Your task to perform on an android device: change the clock display to analog Image 0: 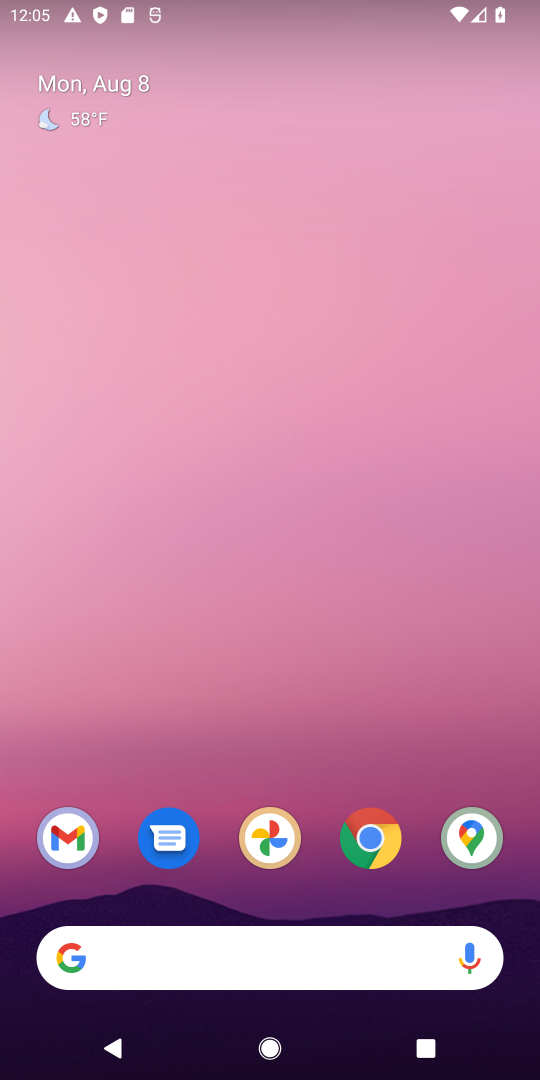
Step 0: press home button
Your task to perform on an android device: change the clock display to analog Image 1: 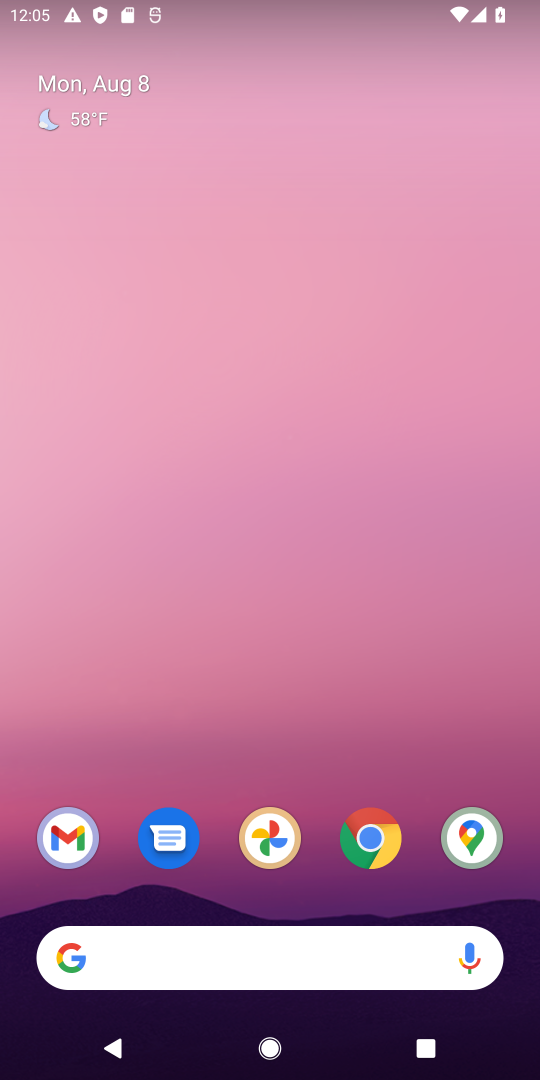
Step 1: drag from (343, 894) to (348, 99)
Your task to perform on an android device: change the clock display to analog Image 2: 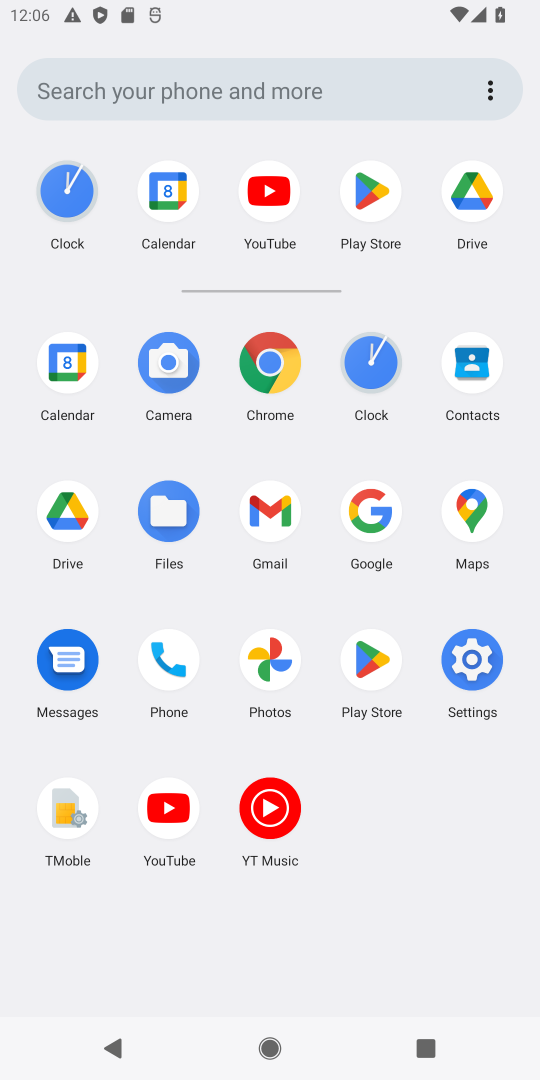
Step 2: click (63, 193)
Your task to perform on an android device: change the clock display to analog Image 3: 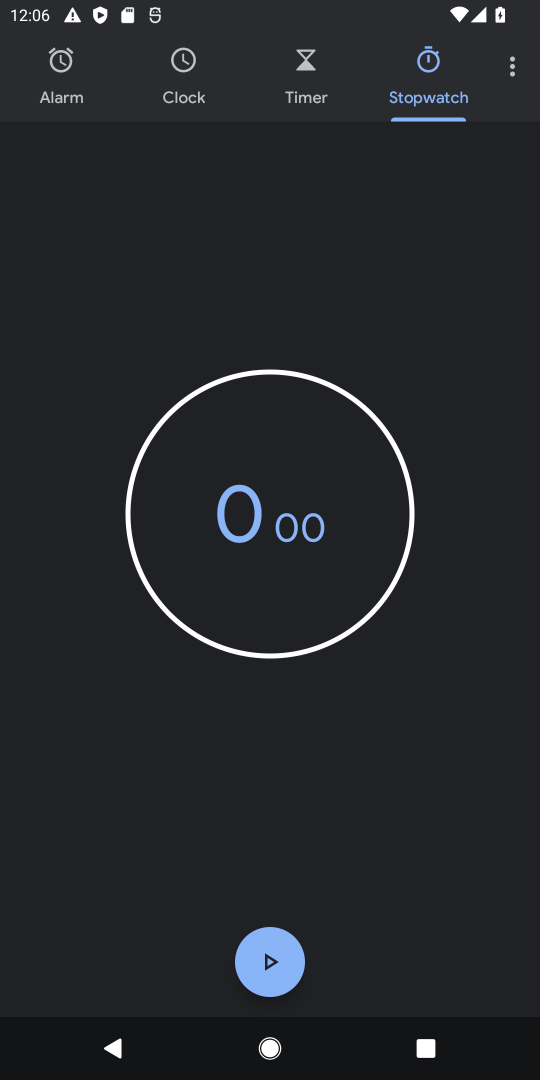
Step 3: click (508, 60)
Your task to perform on an android device: change the clock display to analog Image 4: 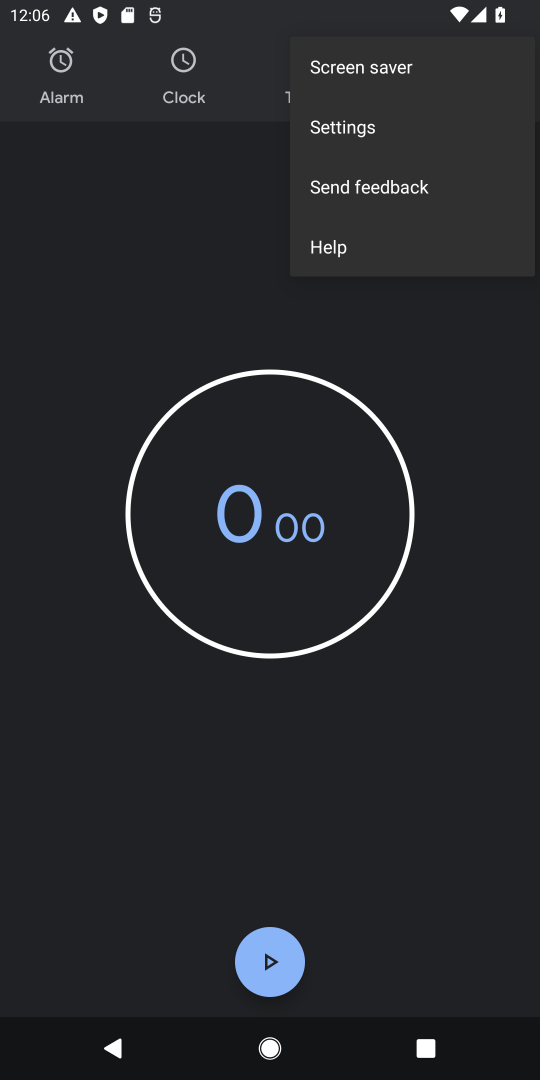
Step 4: click (343, 128)
Your task to perform on an android device: change the clock display to analog Image 5: 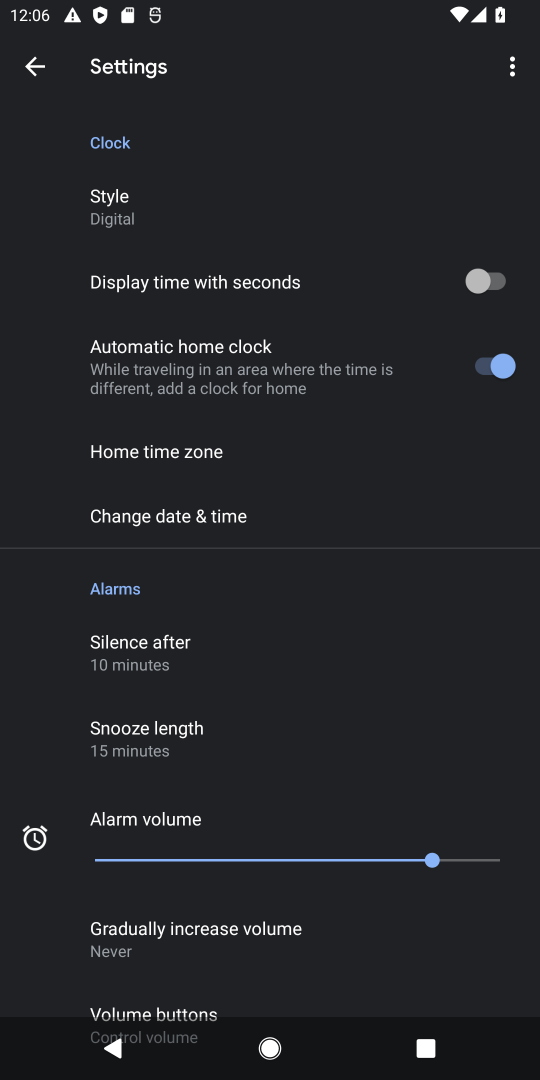
Step 5: click (116, 207)
Your task to perform on an android device: change the clock display to analog Image 6: 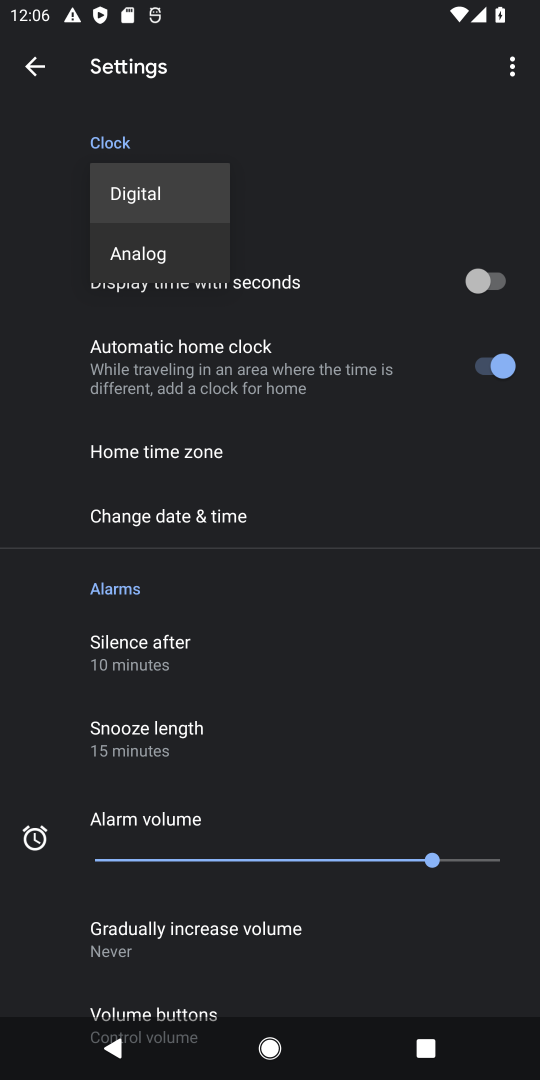
Step 6: click (122, 261)
Your task to perform on an android device: change the clock display to analog Image 7: 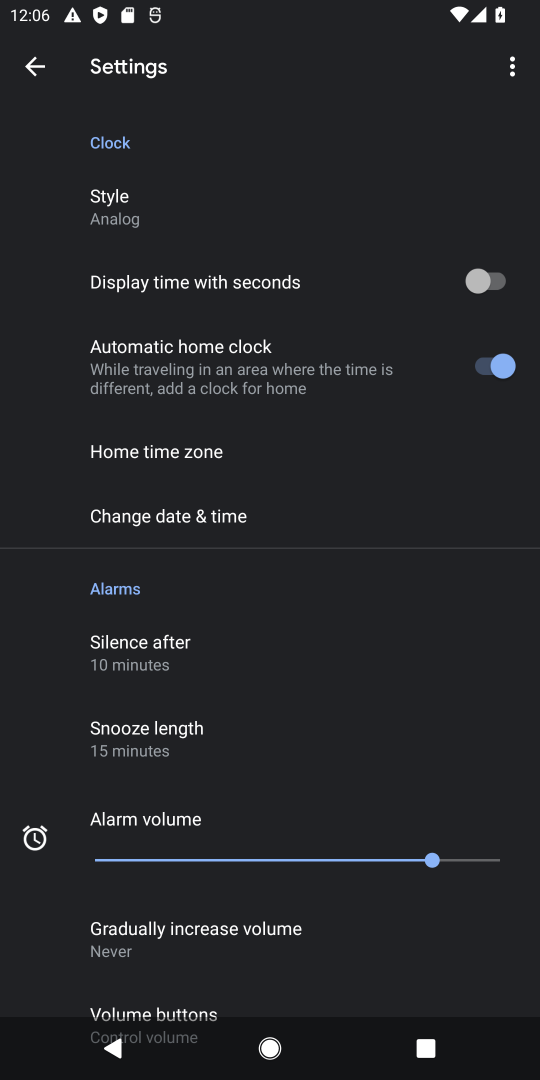
Step 7: task complete